Your task to perform on an android device: What's on my calendar tomorrow? Image 0: 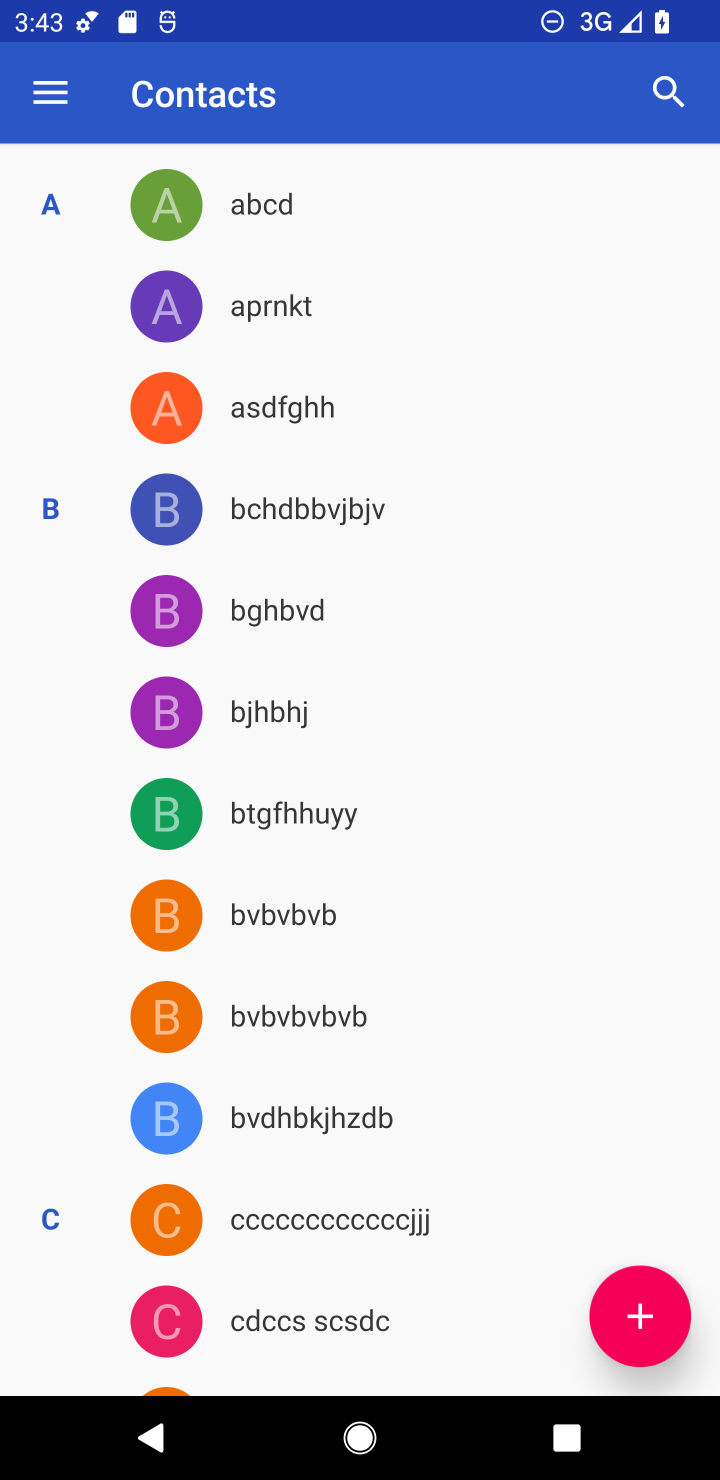
Step 0: press home button
Your task to perform on an android device: What's on my calendar tomorrow? Image 1: 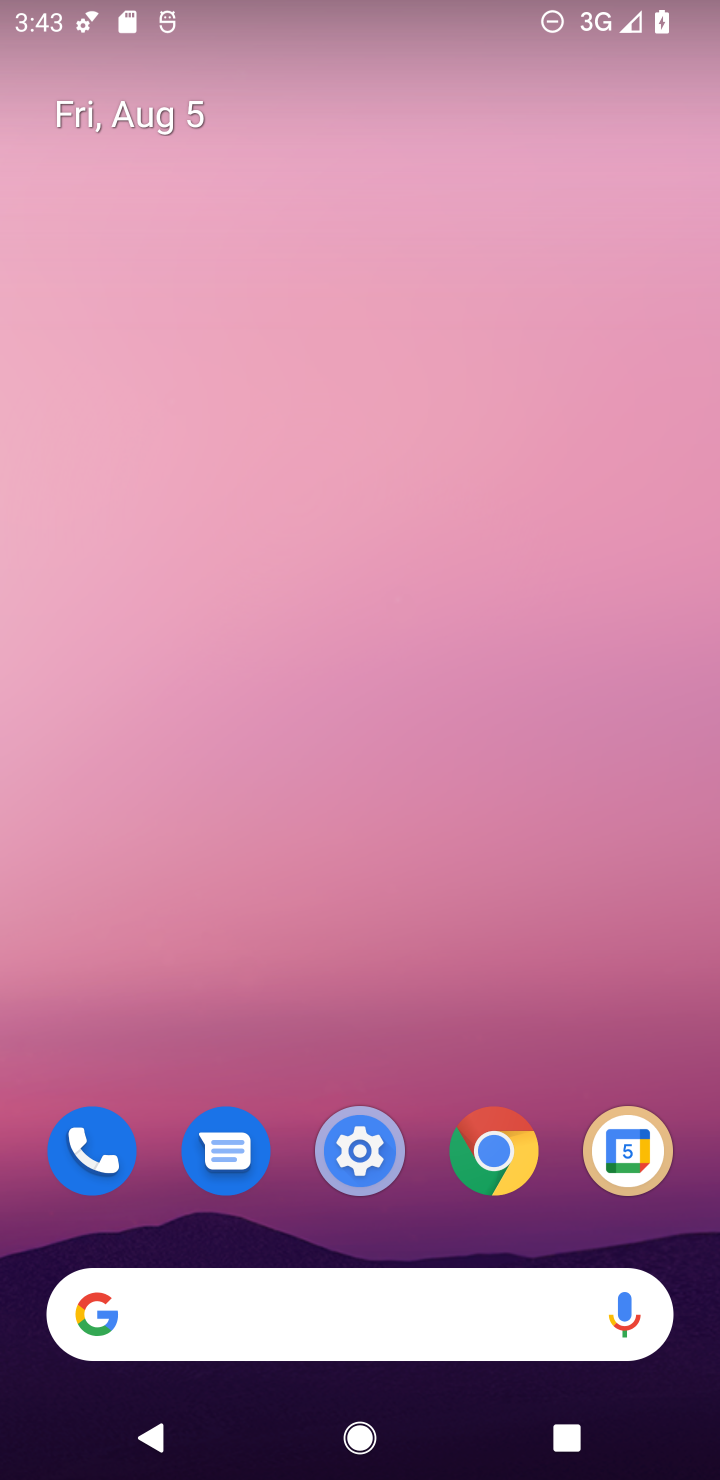
Step 1: click (636, 1156)
Your task to perform on an android device: What's on my calendar tomorrow? Image 2: 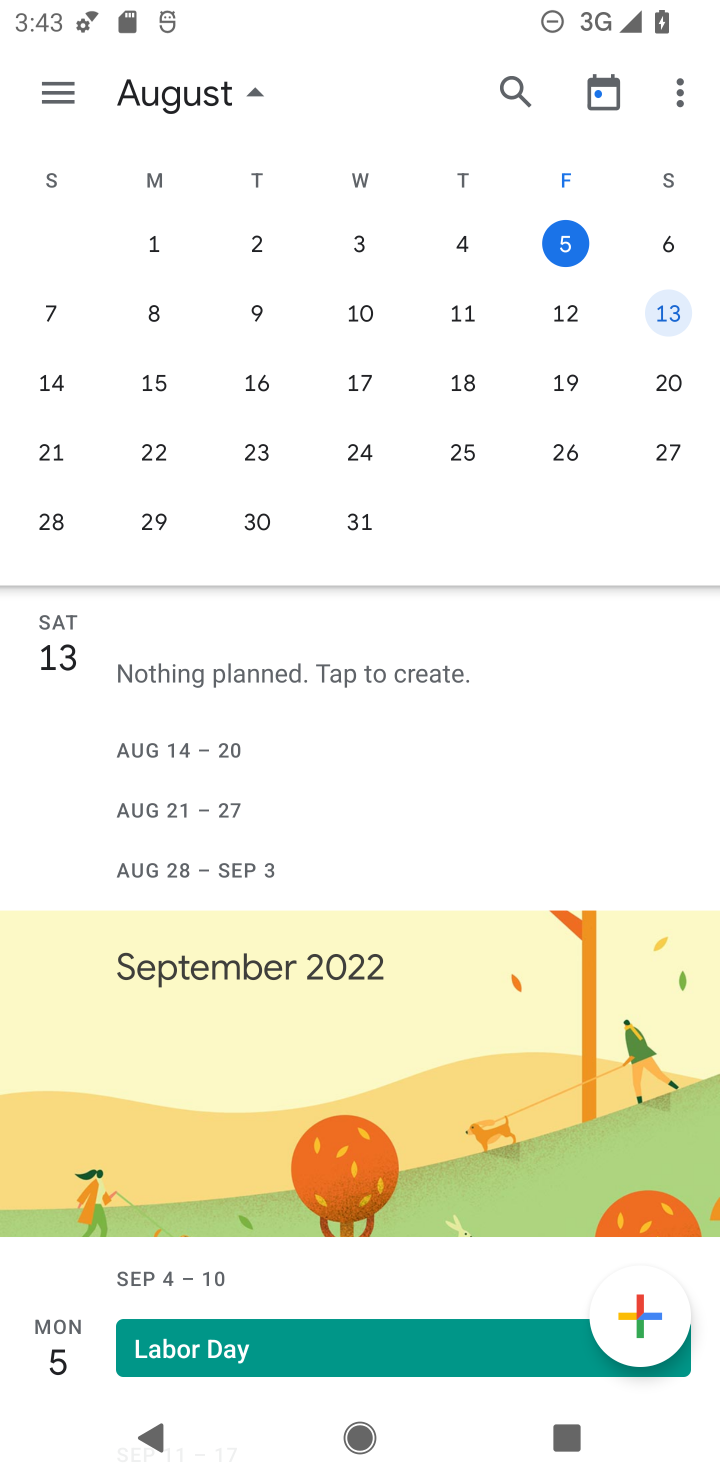
Step 2: click (659, 245)
Your task to perform on an android device: What's on my calendar tomorrow? Image 3: 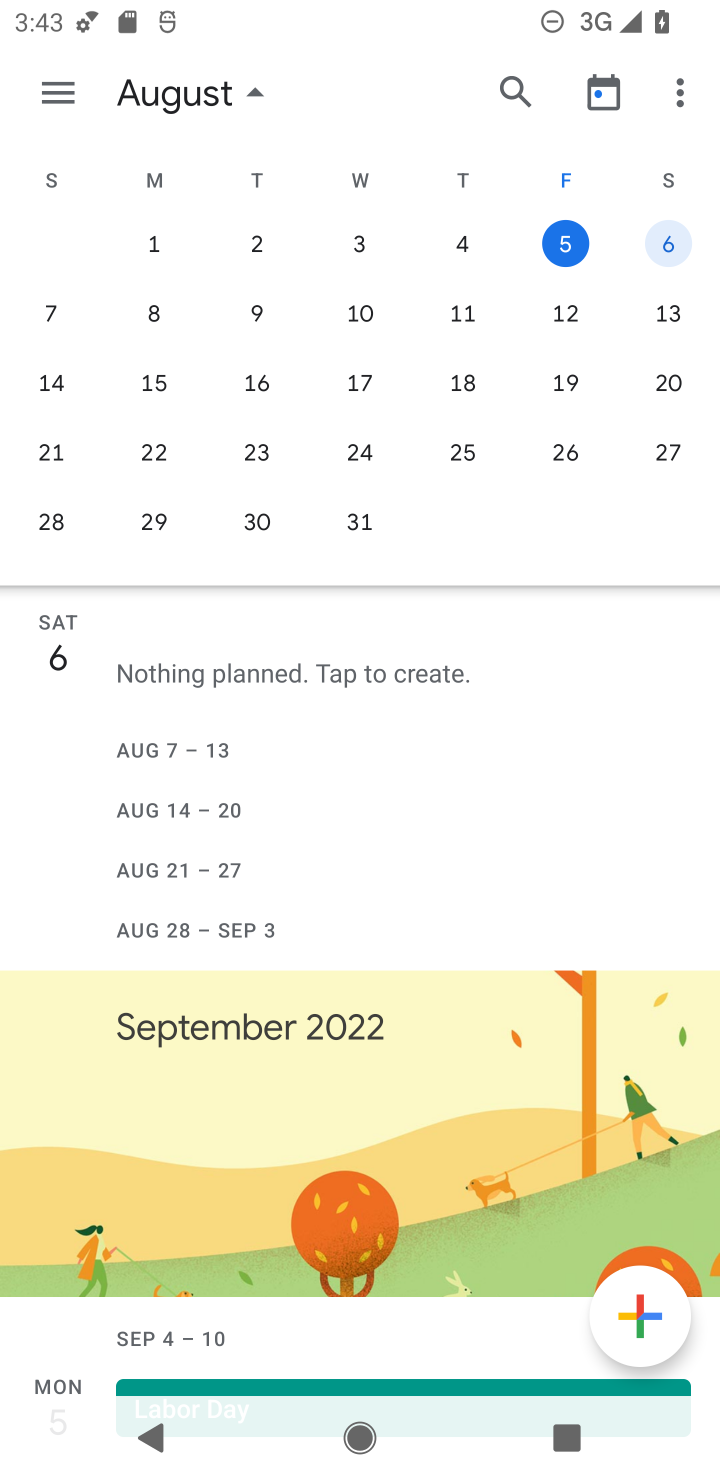
Step 3: task complete